Your task to perform on an android device: create a new album in the google photos Image 0: 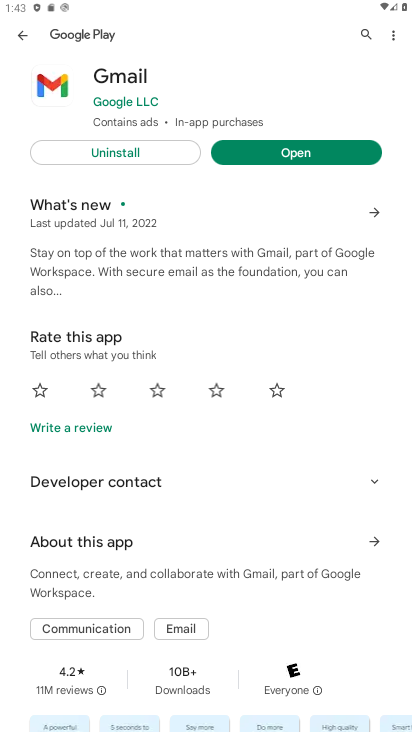
Step 0: click (299, 162)
Your task to perform on an android device: create a new album in the google photos Image 1: 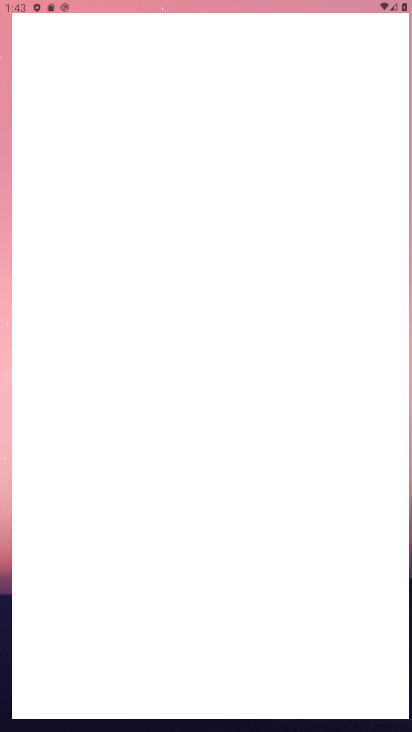
Step 1: task complete